Your task to perform on an android device: Open the web browser Image 0: 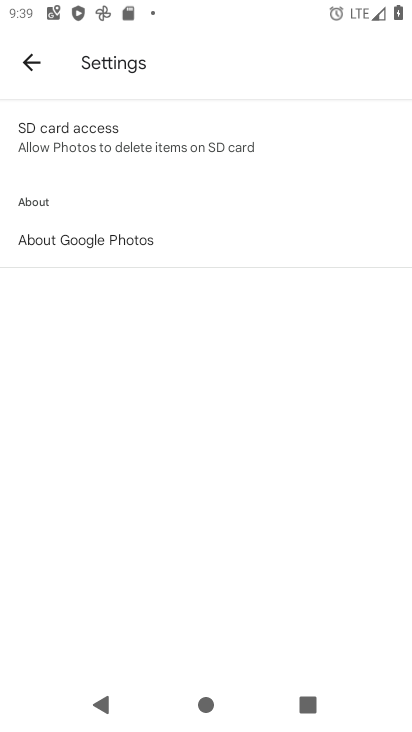
Step 0: press home button
Your task to perform on an android device: Open the web browser Image 1: 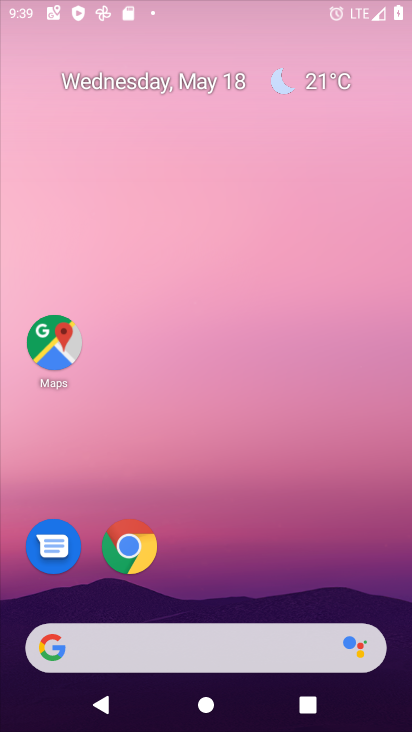
Step 1: drag from (398, 651) to (335, 29)
Your task to perform on an android device: Open the web browser Image 2: 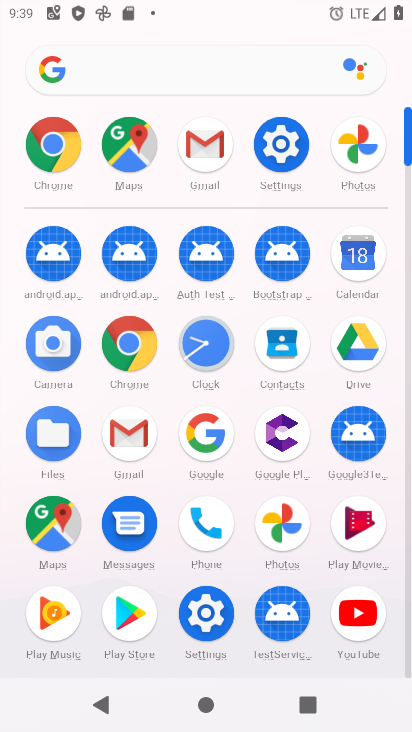
Step 2: click (145, 324)
Your task to perform on an android device: Open the web browser Image 3: 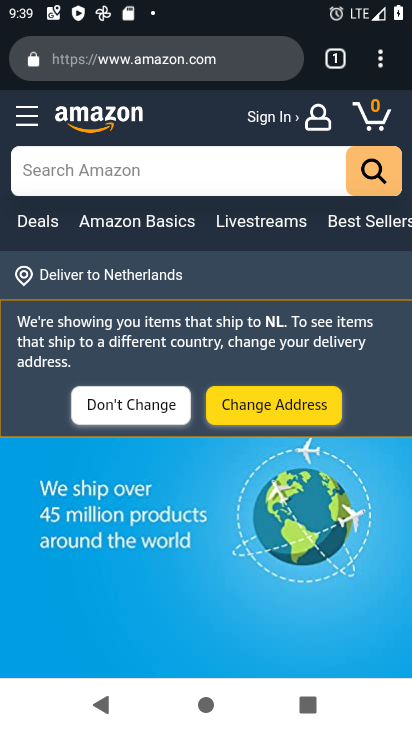
Step 3: task complete